Your task to perform on an android device: What's the weather today? Image 0: 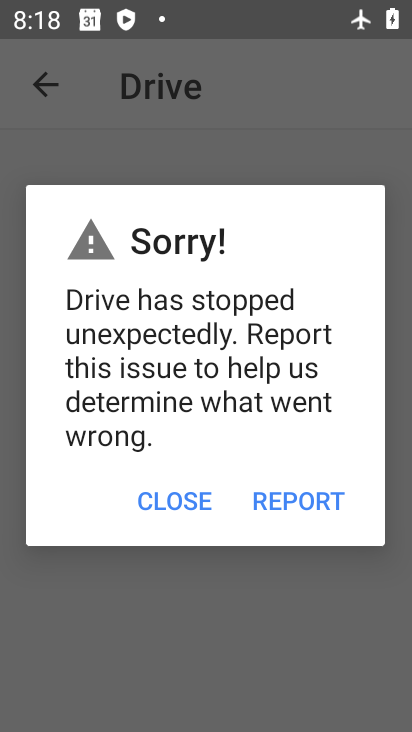
Step 0: press home button
Your task to perform on an android device: What's the weather today? Image 1: 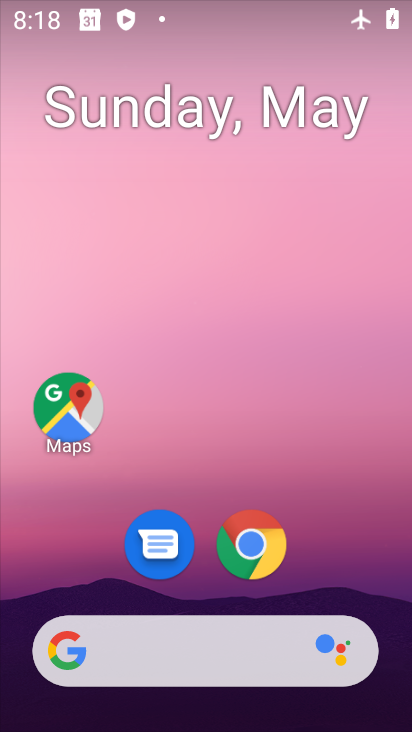
Step 1: drag from (380, 456) to (337, 41)
Your task to perform on an android device: What's the weather today? Image 2: 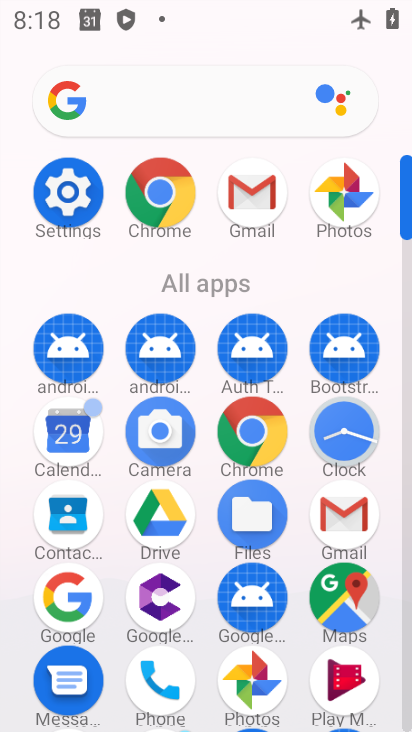
Step 2: click (85, 105)
Your task to perform on an android device: What's the weather today? Image 3: 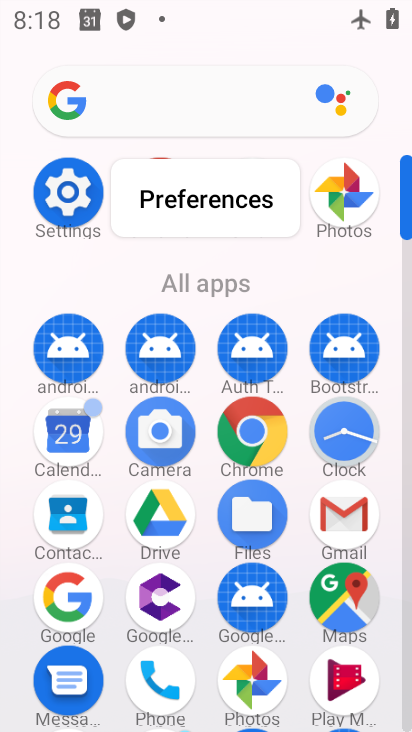
Step 3: click (82, 104)
Your task to perform on an android device: What's the weather today? Image 4: 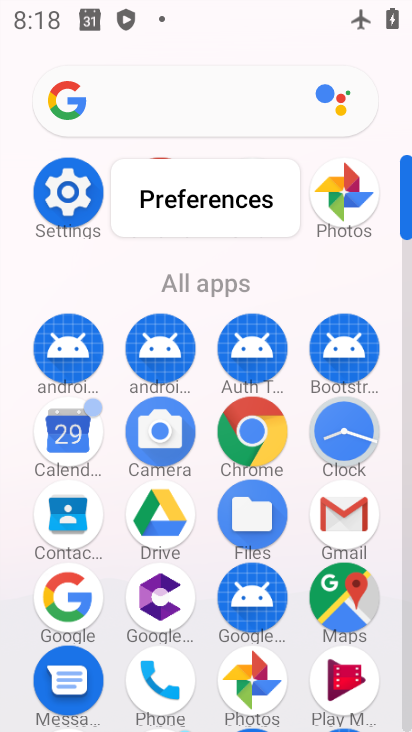
Step 4: click (58, 100)
Your task to perform on an android device: What's the weather today? Image 5: 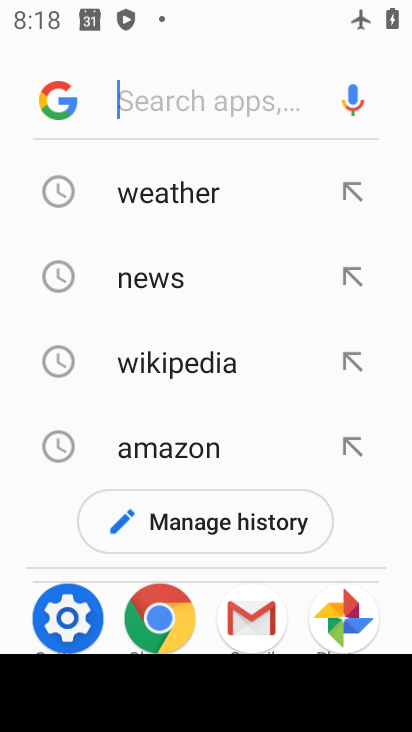
Step 5: click (58, 99)
Your task to perform on an android device: What's the weather today? Image 6: 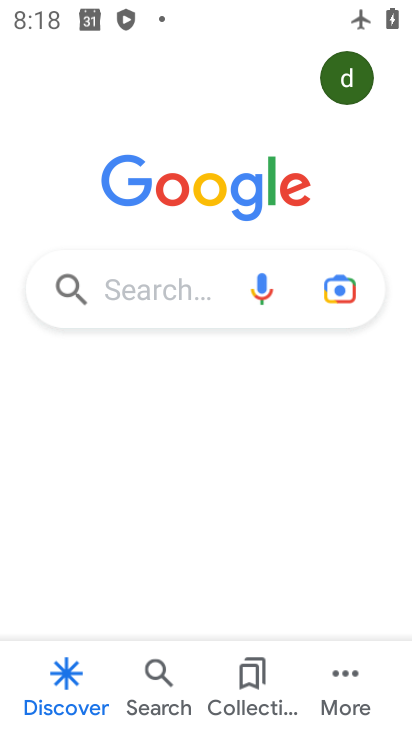
Step 6: task complete